Your task to perform on an android device: toggle pop-ups in chrome Image 0: 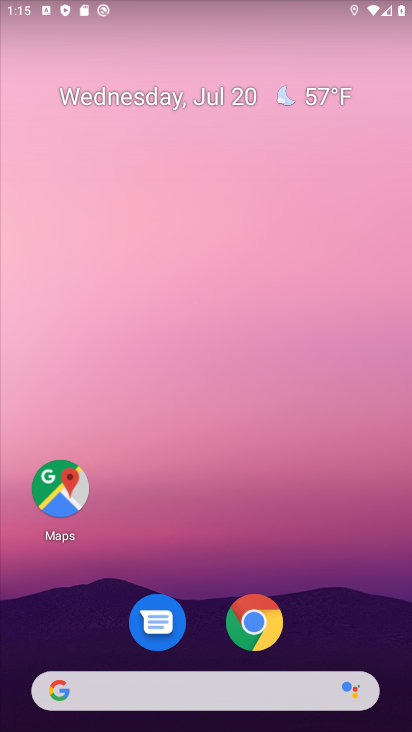
Step 0: click (249, 614)
Your task to perform on an android device: toggle pop-ups in chrome Image 1: 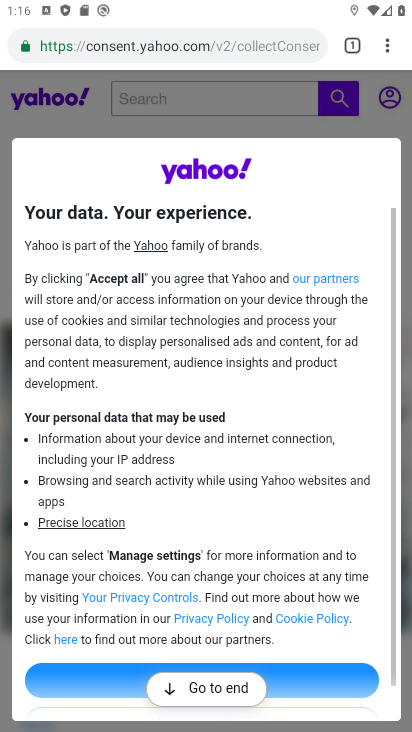
Step 1: click (381, 56)
Your task to perform on an android device: toggle pop-ups in chrome Image 2: 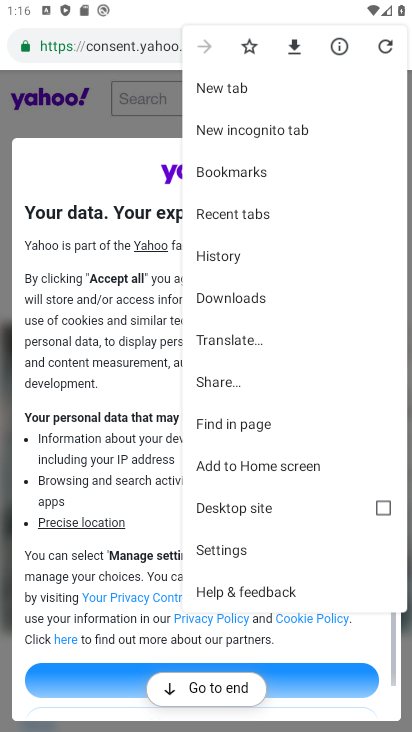
Step 2: click (267, 546)
Your task to perform on an android device: toggle pop-ups in chrome Image 3: 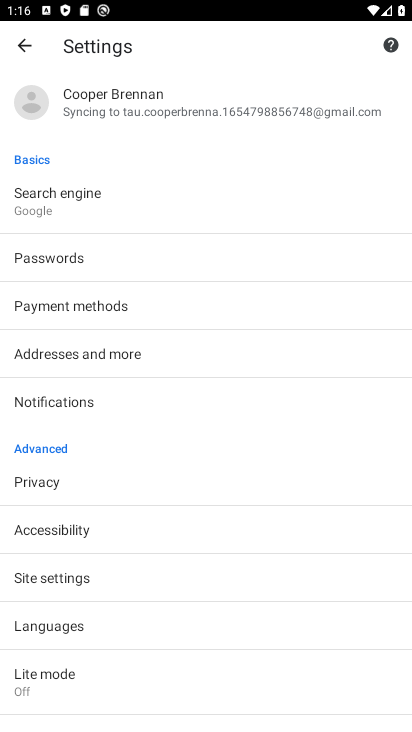
Step 3: click (103, 584)
Your task to perform on an android device: toggle pop-ups in chrome Image 4: 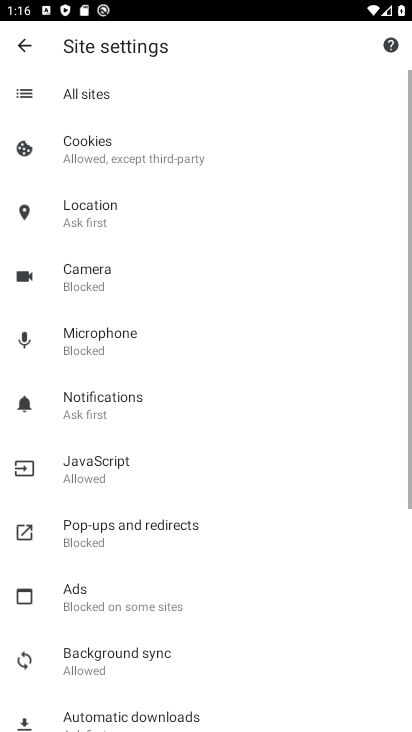
Step 4: click (131, 546)
Your task to perform on an android device: toggle pop-ups in chrome Image 5: 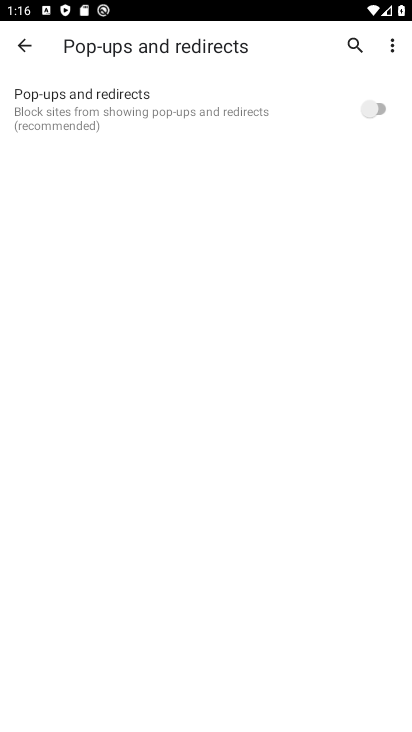
Step 5: click (381, 97)
Your task to perform on an android device: toggle pop-ups in chrome Image 6: 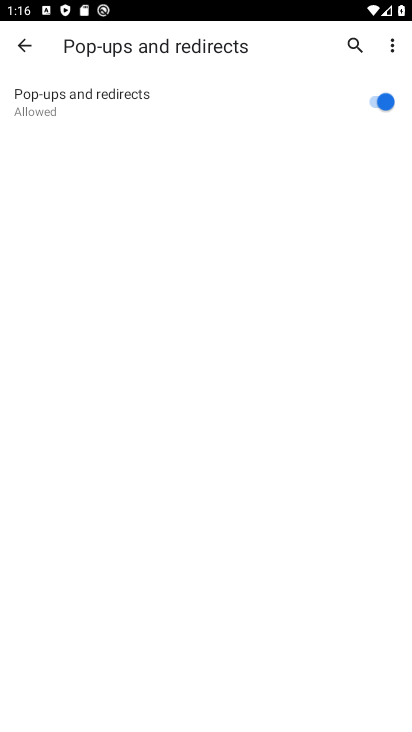
Step 6: task complete